Your task to perform on an android device: View the shopping cart on bestbuy.com. Search for "macbook air" on bestbuy.com, select the first entry, and add it to the cart. Image 0: 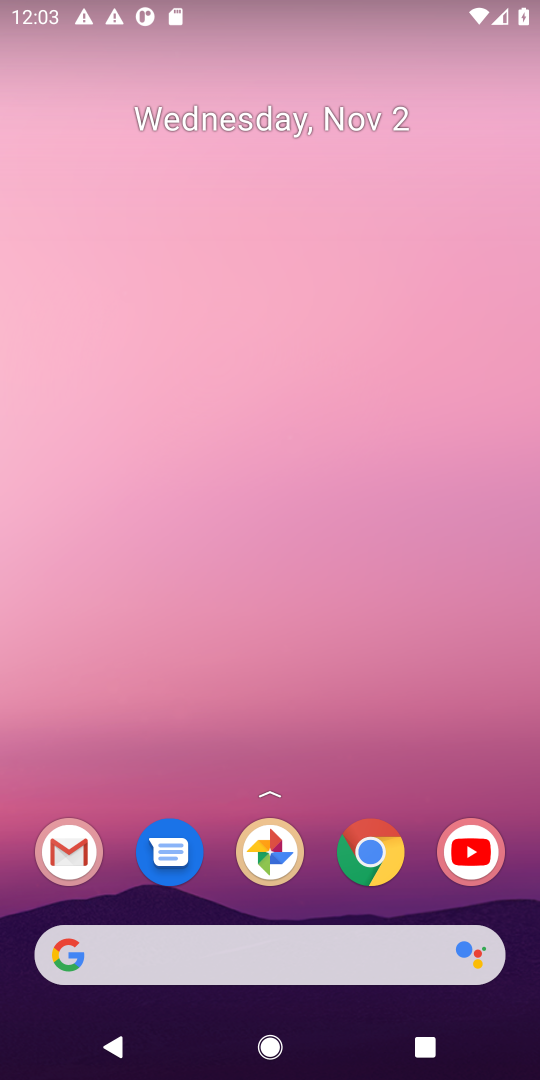
Step 0: click (65, 958)
Your task to perform on an android device: View the shopping cart on bestbuy.com. Search for "macbook air" on bestbuy.com, select the first entry, and add it to the cart. Image 1: 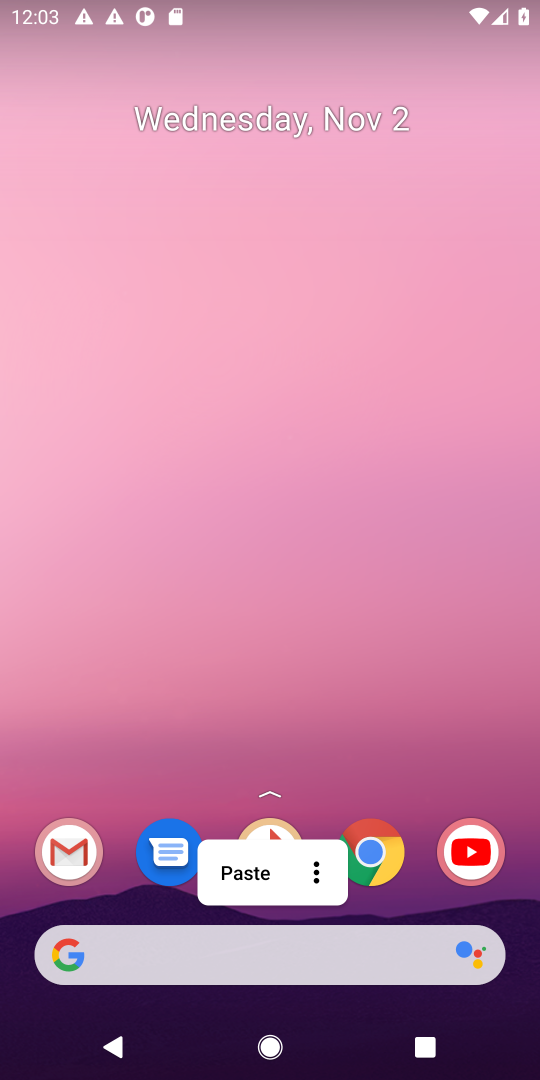
Step 1: click (65, 958)
Your task to perform on an android device: View the shopping cart on bestbuy.com. Search for "macbook air" on bestbuy.com, select the first entry, and add it to the cart. Image 2: 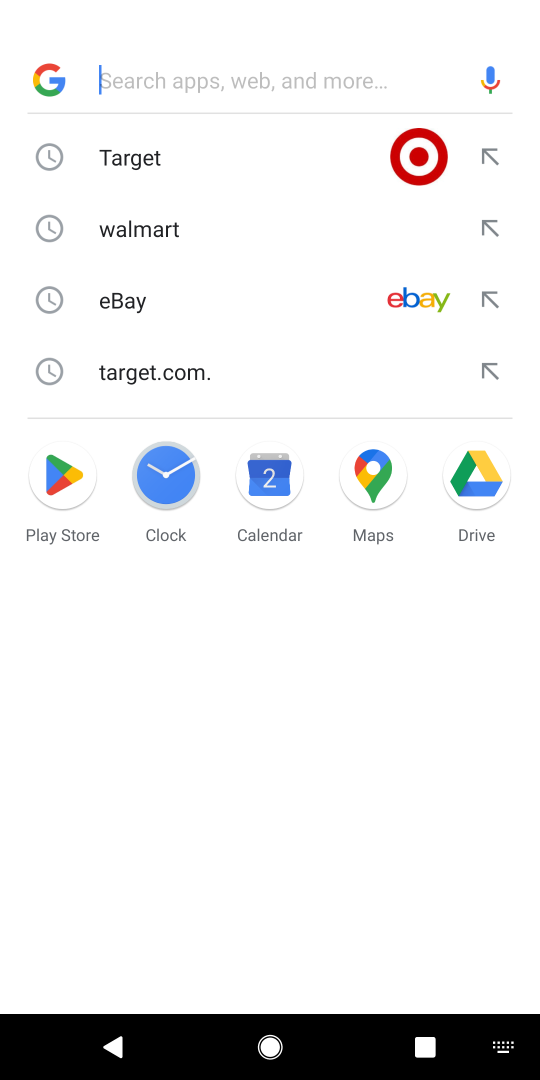
Step 2: type "bestbuy.com"
Your task to perform on an android device: View the shopping cart on bestbuy.com. Search for "macbook air" on bestbuy.com, select the first entry, and add it to the cart. Image 3: 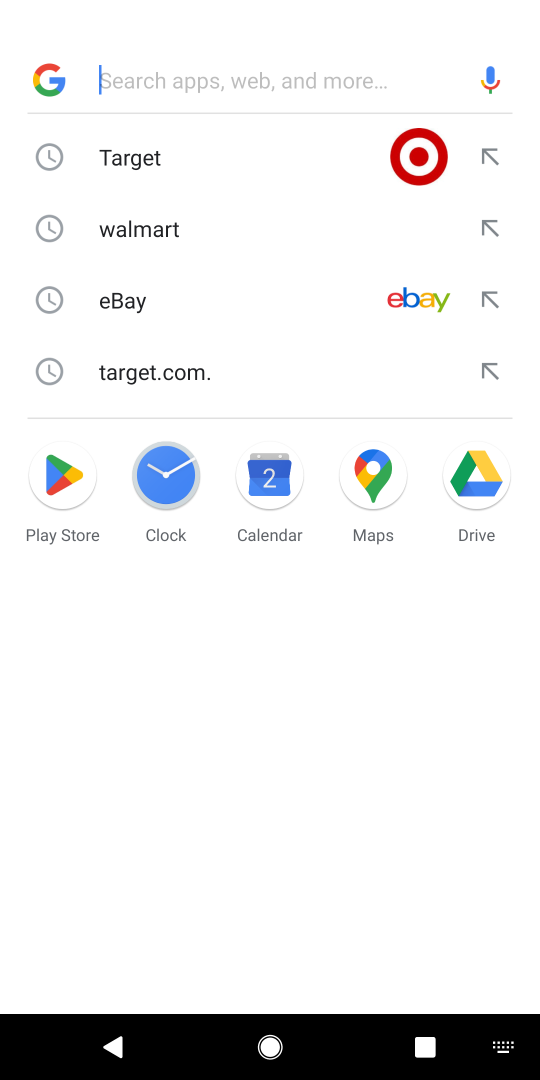
Step 3: click (166, 81)
Your task to perform on an android device: View the shopping cart on bestbuy.com. Search for "macbook air" on bestbuy.com, select the first entry, and add it to the cart. Image 4: 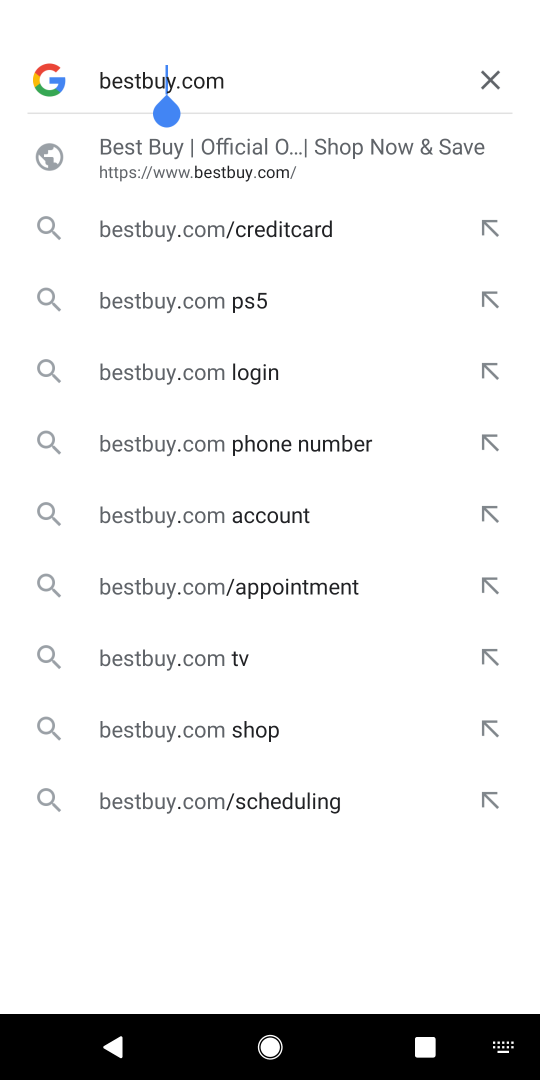
Step 4: press enter
Your task to perform on an android device: View the shopping cart on bestbuy.com. Search for "macbook air" on bestbuy.com, select the first entry, and add it to the cart. Image 5: 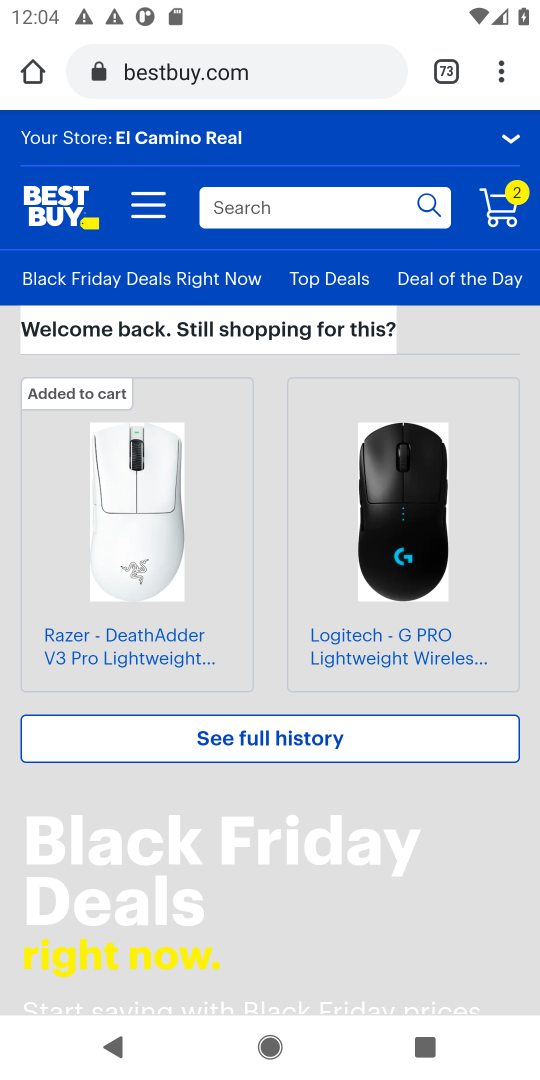
Step 5: click (272, 211)
Your task to perform on an android device: View the shopping cart on bestbuy.com. Search for "macbook air" on bestbuy.com, select the first entry, and add it to the cart. Image 6: 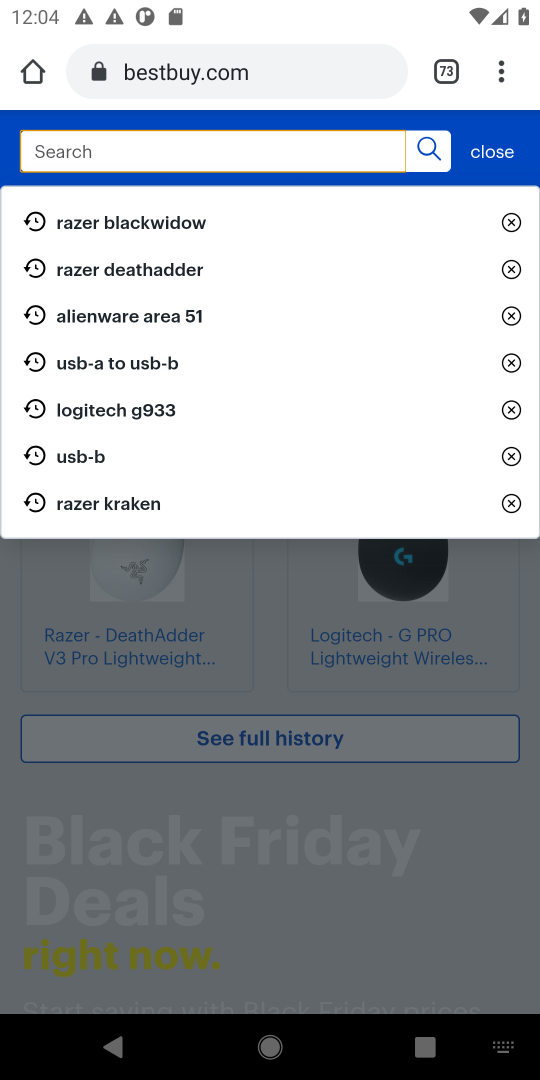
Step 6: type "macbook air"
Your task to perform on an android device: View the shopping cart on bestbuy.com. Search for "macbook air" on bestbuy.com, select the first entry, and add it to the cart. Image 7: 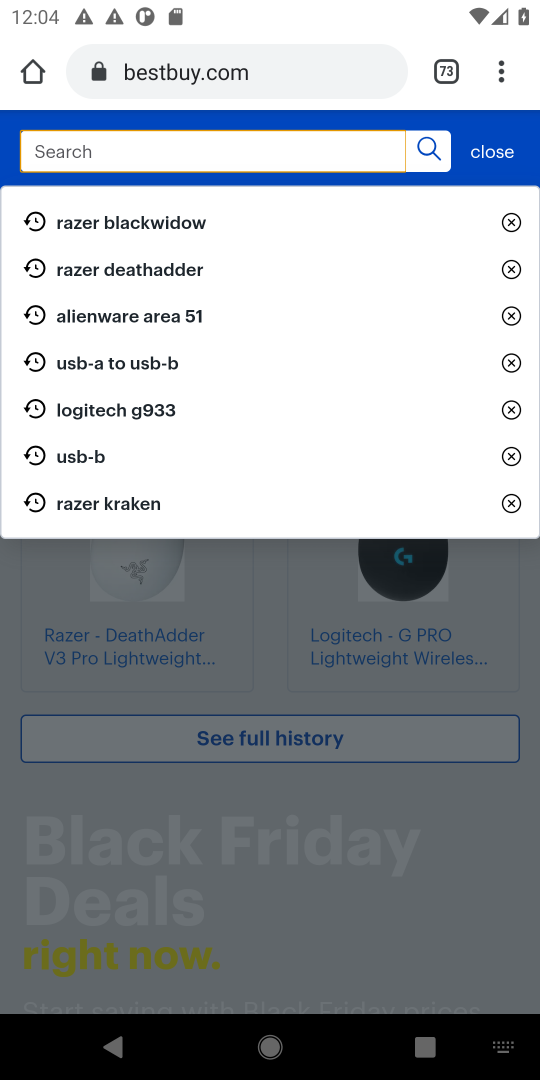
Step 7: click (158, 153)
Your task to perform on an android device: View the shopping cart on bestbuy.com. Search for "macbook air" on bestbuy.com, select the first entry, and add it to the cart. Image 8: 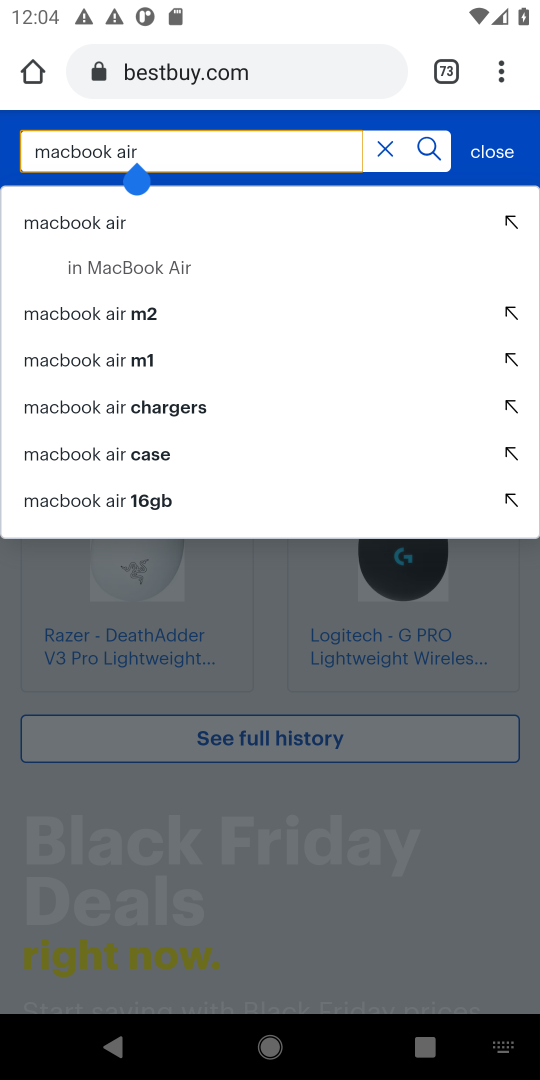
Step 8: press enter
Your task to perform on an android device: View the shopping cart on bestbuy.com. Search for "macbook air" on bestbuy.com, select the first entry, and add it to the cart. Image 9: 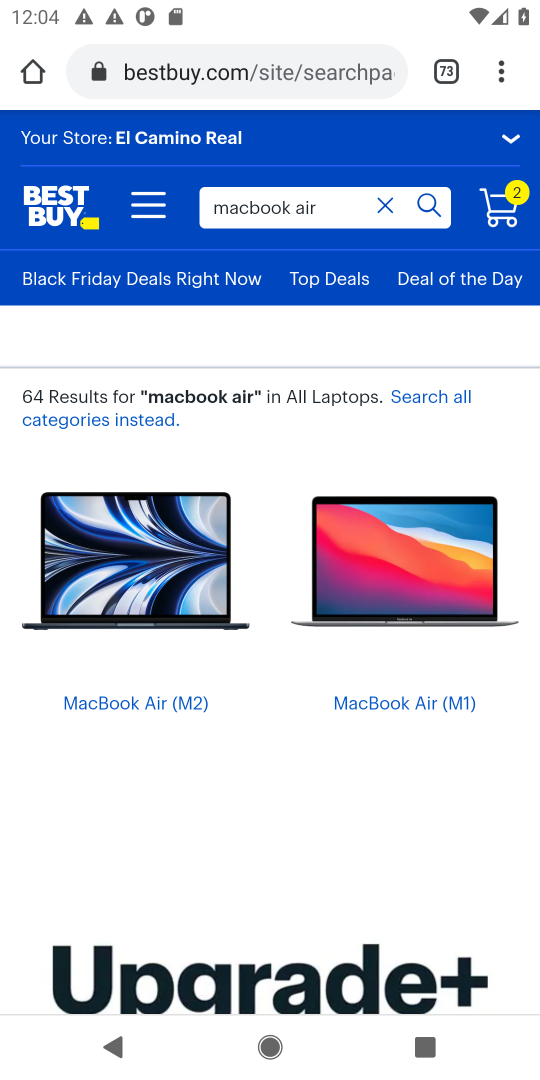
Step 9: drag from (216, 866) to (328, 201)
Your task to perform on an android device: View the shopping cart on bestbuy.com. Search for "macbook air" on bestbuy.com, select the first entry, and add it to the cart. Image 10: 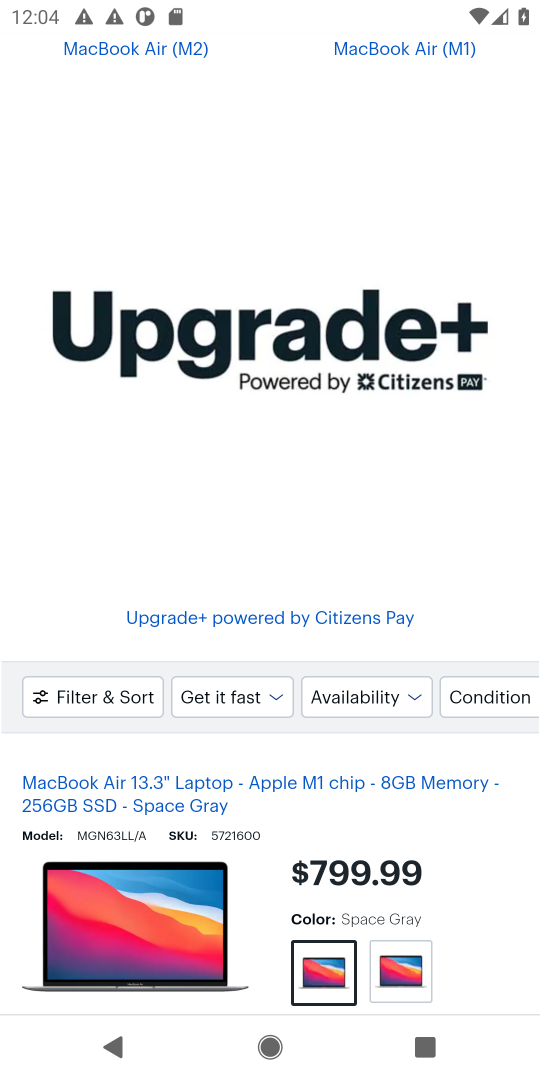
Step 10: drag from (262, 782) to (311, 350)
Your task to perform on an android device: View the shopping cart on bestbuy.com. Search for "macbook air" on bestbuy.com, select the first entry, and add it to the cart. Image 11: 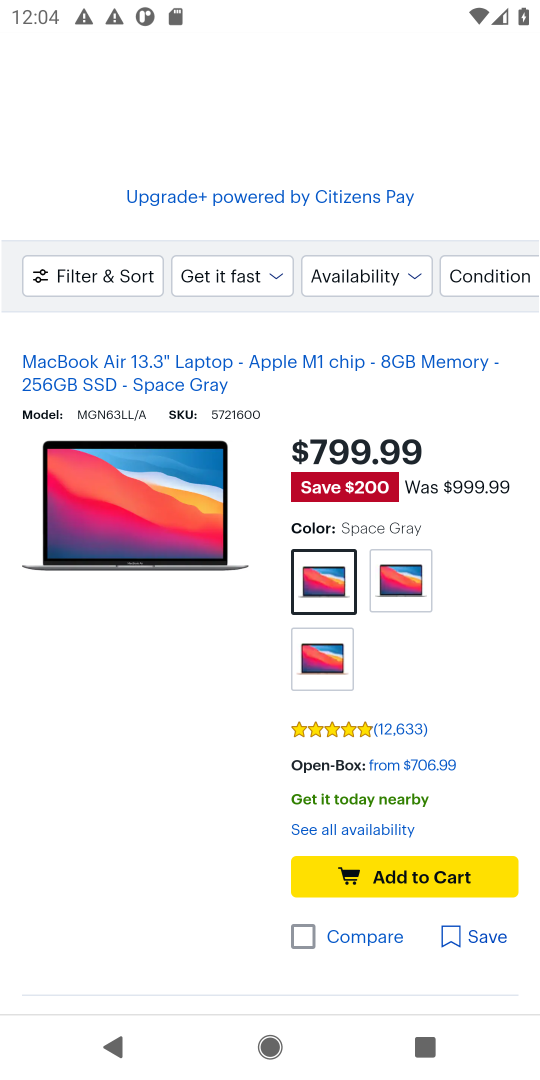
Step 11: click (415, 882)
Your task to perform on an android device: View the shopping cart on bestbuy.com. Search for "macbook air" on bestbuy.com, select the first entry, and add it to the cart. Image 12: 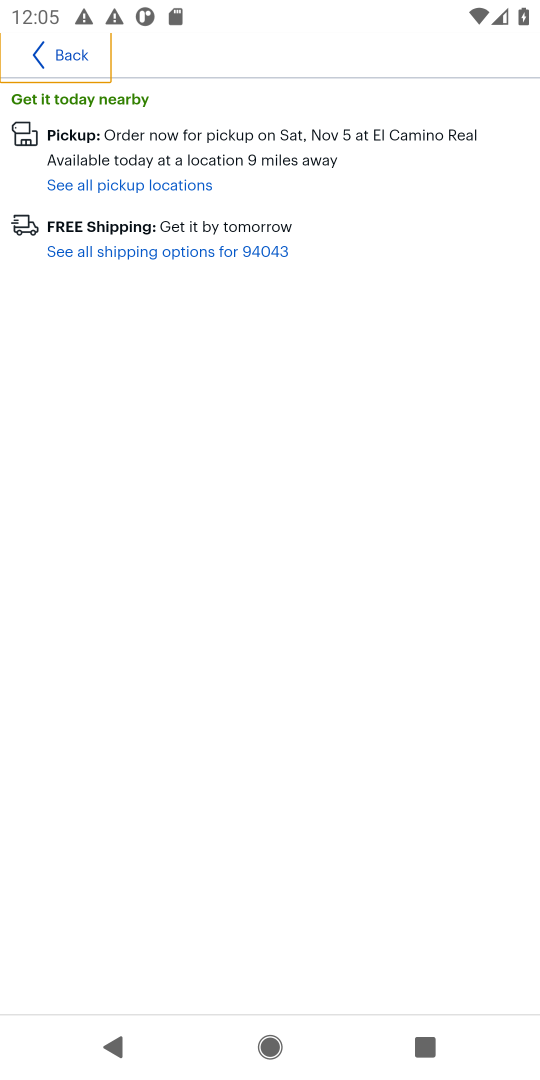
Step 12: click (63, 46)
Your task to perform on an android device: View the shopping cart on bestbuy.com. Search for "macbook air" on bestbuy.com, select the first entry, and add it to the cart. Image 13: 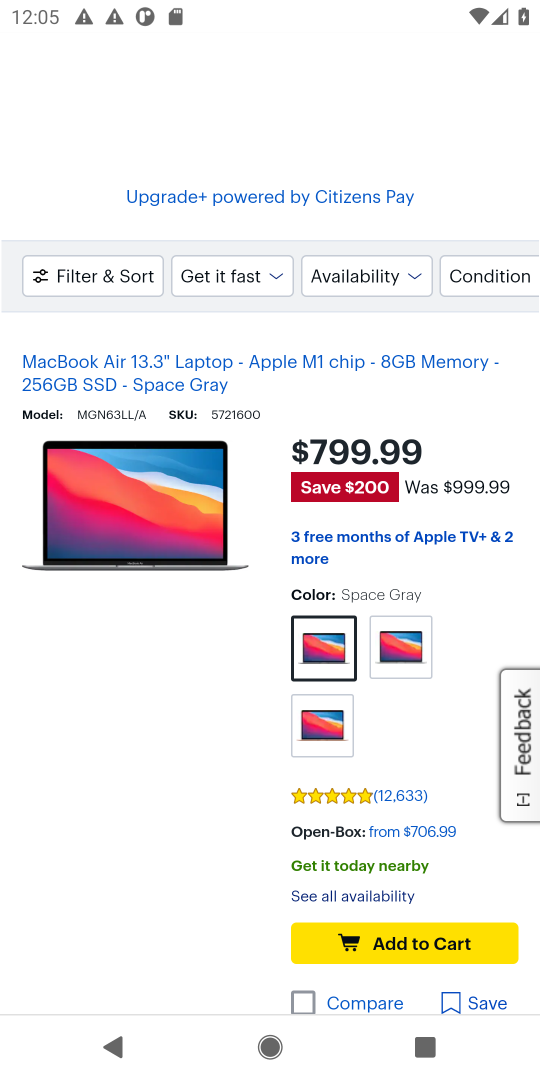
Step 13: click (381, 938)
Your task to perform on an android device: View the shopping cart on bestbuy.com. Search for "macbook air" on bestbuy.com, select the first entry, and add it to the cart. Image 14: 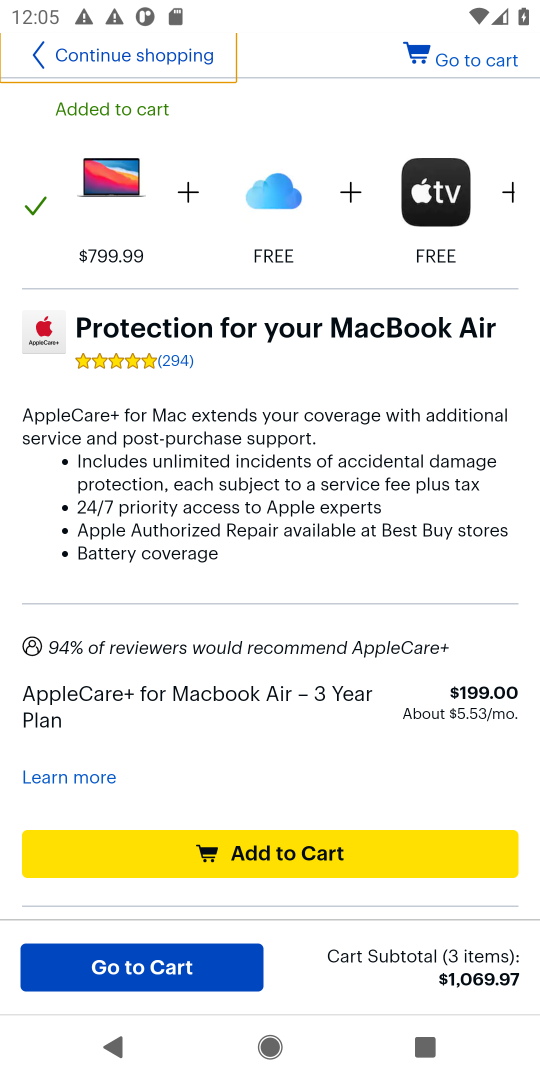
Step 14: click (159, 969)
Your task to perform on an android device: View the shopping cart on bestbuy.com. Search for "macbook air" on bestbuy.com, select the first entry, and add it to the cart. Image 15: 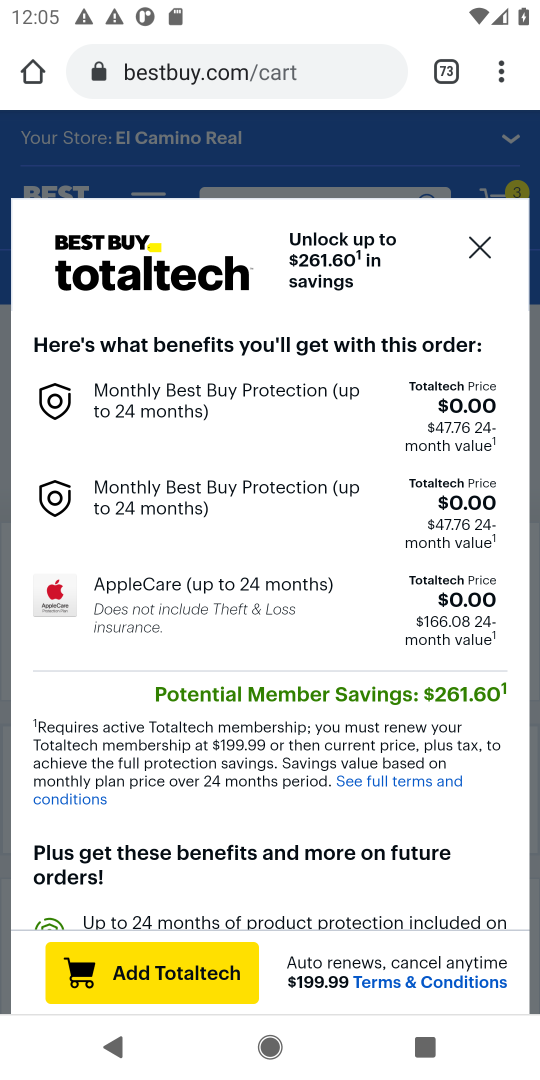
Step 15: click (467, 240)
Your task to perform on an android device: View the shopping cart on bestbuy.com. Search for "macbook air" on bestbuy.com, select the first entry, and add it to the cart. Image 16: 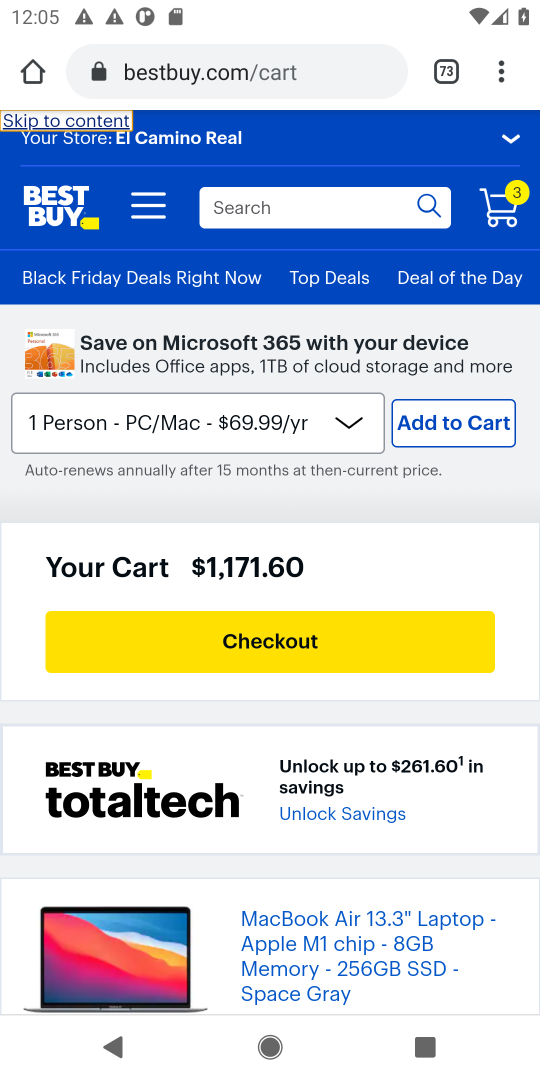
Step 16: click (511, 206)
Your task to perform on an android device: View the shopping cart on bestbuy.com. Search for "macbook air" on bestbuy.com, select the first entry, and add it to the cart. Image 17: 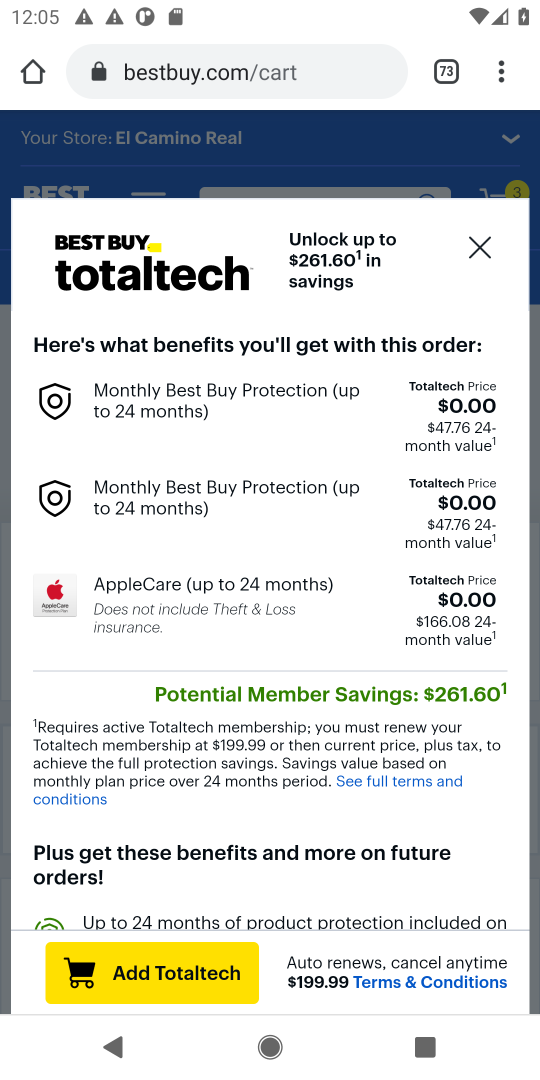
Step 17: click (477, 242)
Your task to perform on an android device: View the shopping cart on bestbuy.com. Search for "macbook air" on bestbuy.com, select the first entry, and add it to the cart. Image 18: 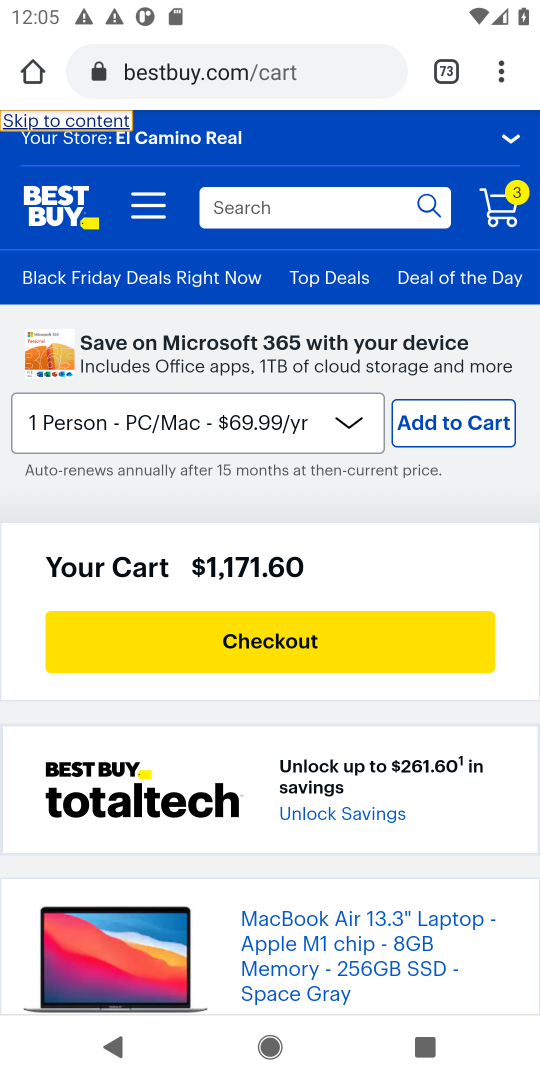
Step 18: task complete